Your task to perform on an android device: make emails show in primary in the gmail app Image 0: 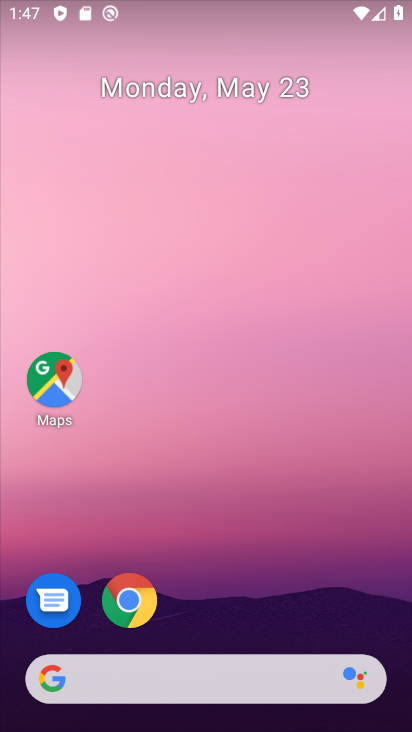
Step 0: drag from (252, 614) to (185, 141)
Your task to perform on an android device: make emails show in primary in the gmail app Image 1: 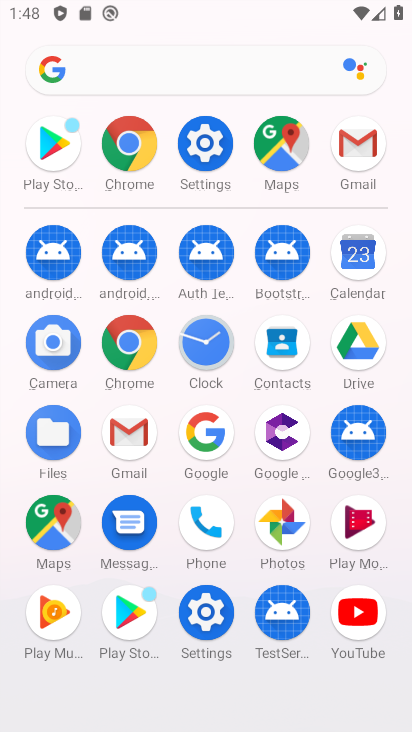
Step 1: click (356, 147)
Your task to perform on an android device: make emails show in primary in the gmail app Image 2: 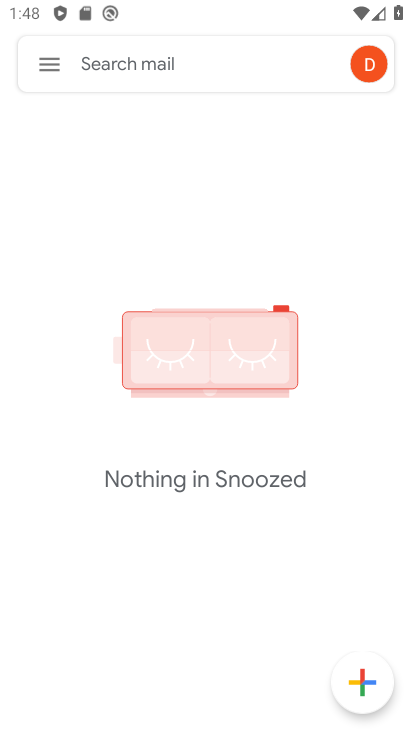
Step 2: click (38, 66)
Your task to perform on an android device: make emails show in primary in the gmail app Image 3: 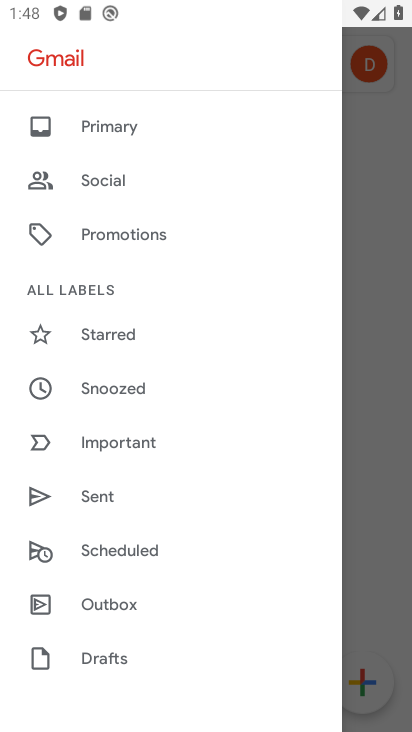
Step 3: drag from (180, 659) to (212, 223)
Your task to perform on an android device: make emails show in primary in the gmail app Image 4: 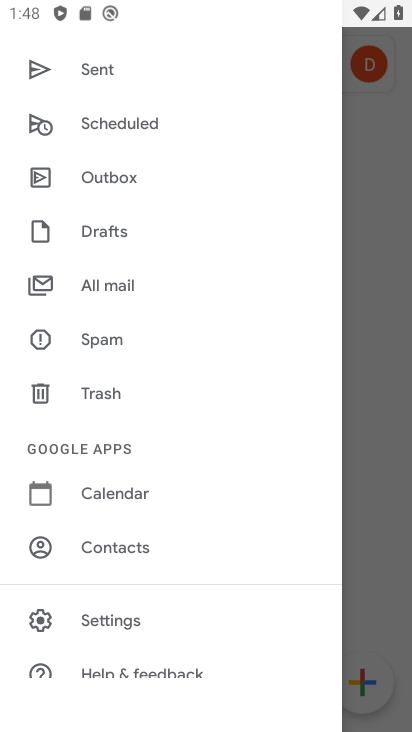
Step 4: click (176, 617)
Your task to perform on an android device: make emails show in primary in the gmail app Image 5: 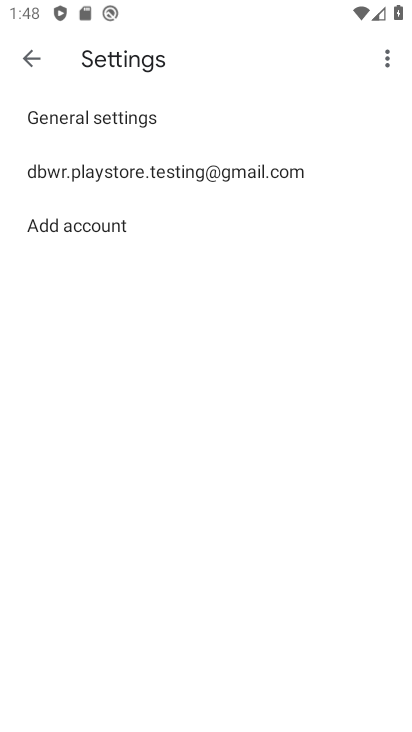
Step 5: click (185, 181)
Your task to perform on an android device: make emails show in primary in the gmail app Image 6: 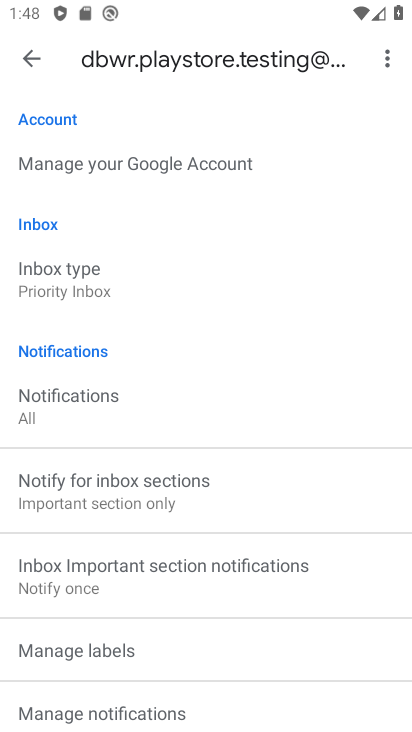
Step 6: click (187, 266)
Your task to perform on an android device: make emails show in primary in the gmail app Image 7: 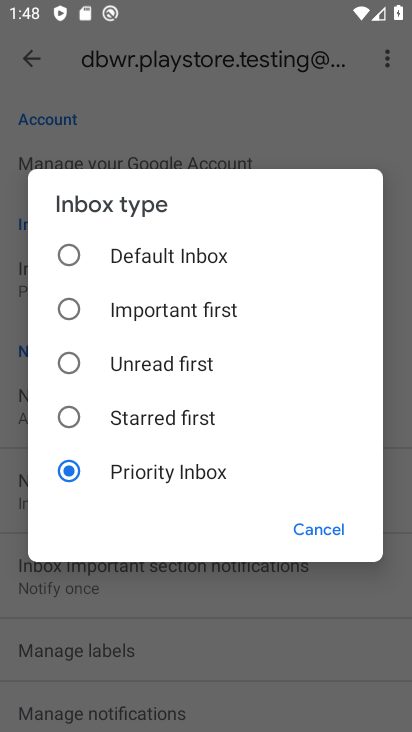
Step 7: click (180, 248)
Your task to perform on an android device: make emails show in primary in the gmail app Image 8: 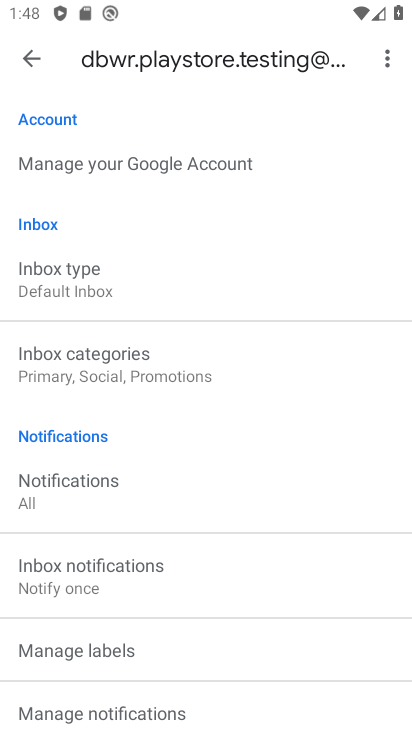
Step 8: task complete